Your task to perform on an android device: turn on notifications settings in the gmail app Image 0: 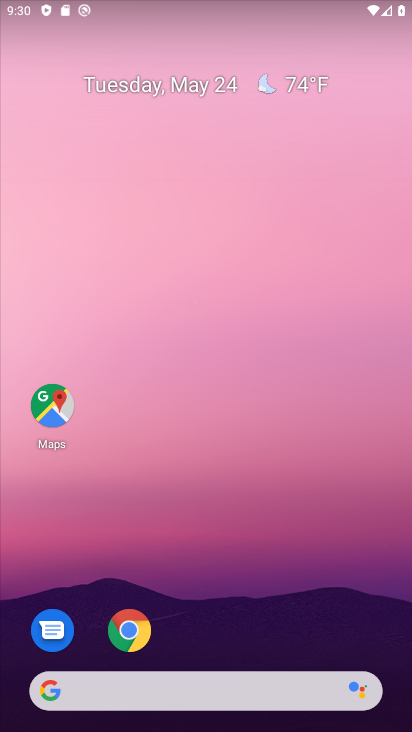
Step 0: drag from (329, 468) to (280, 258)
Your task to perform on an android device: turn on notifications settings in the gmail app Image 1: 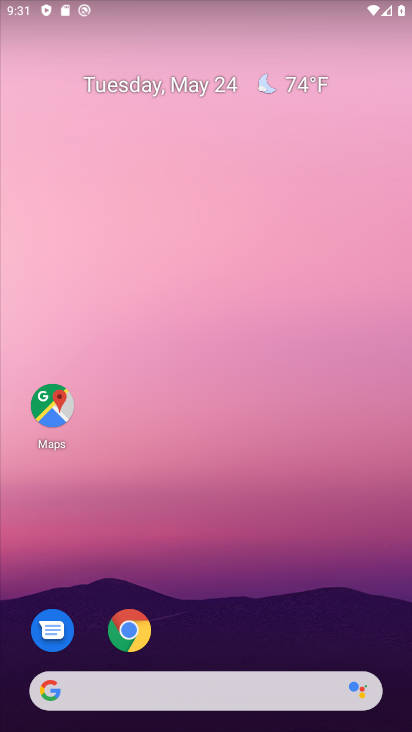
Step 1: drag from (351, 606) to (256, 75)
Your task to perform on an android device: turn on notifications settings in the gmail app Image 2: 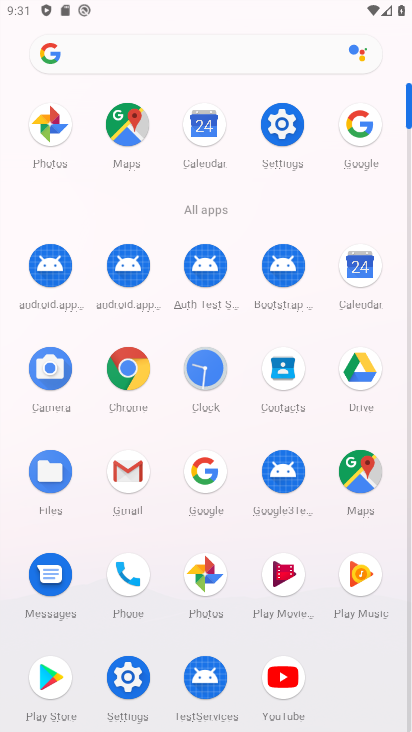
Step 2: click (120, 478)
Your task to perform on an android device: turn on notifications settings in the gmail app Image 3: 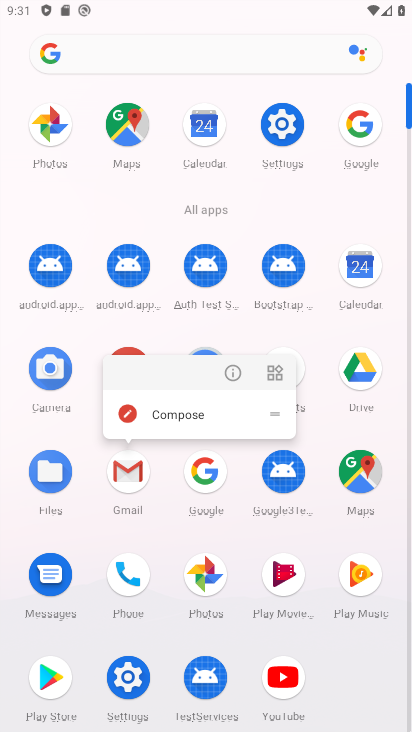
Step 3: click (229, 373)
Your task to perform on an android device: turn on notifications settings in the gmail app Image 4: 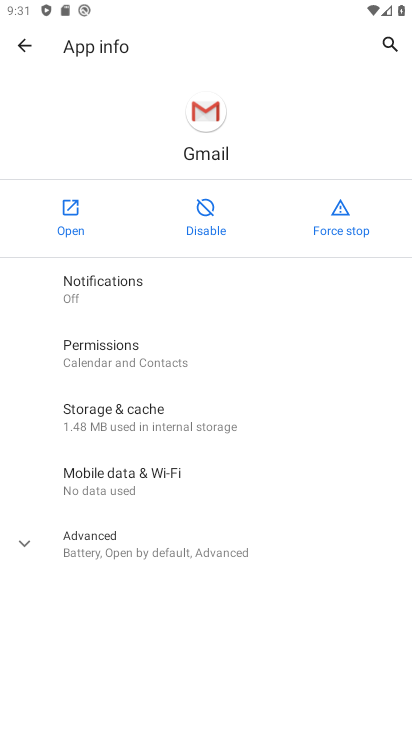
Step 4: click (129, 295)
Your task to perform on an android device: turn on notifications settings in the gmail app Image 5: 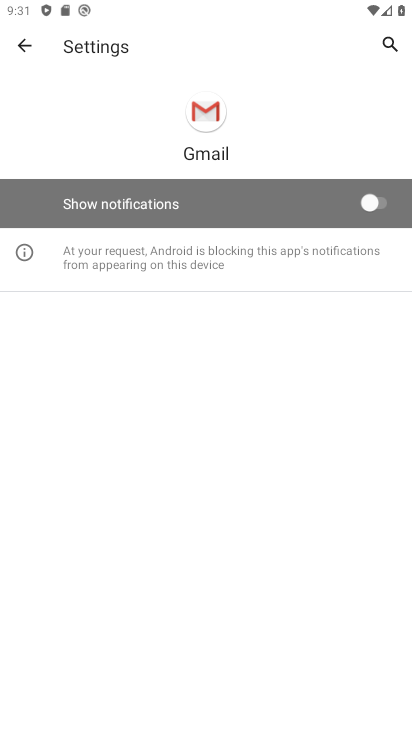
Step 5: click (373, 215)
Your task to perform on an android device: turn on notifications settings in the gmail app Image 6: 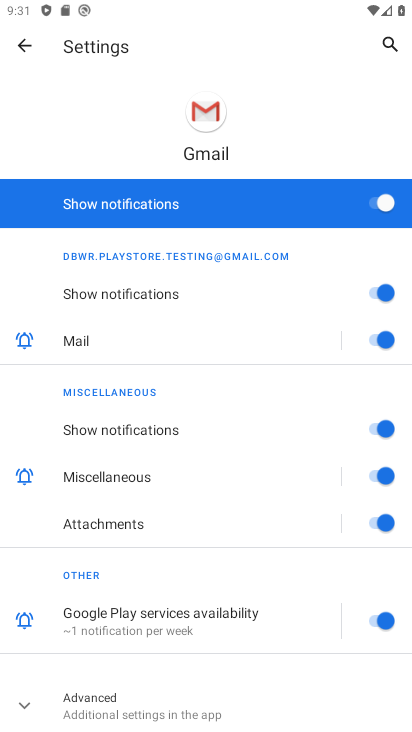
Step 6: task complete